Your task to perform on an android device: turn off picture-in-picture Image 0: 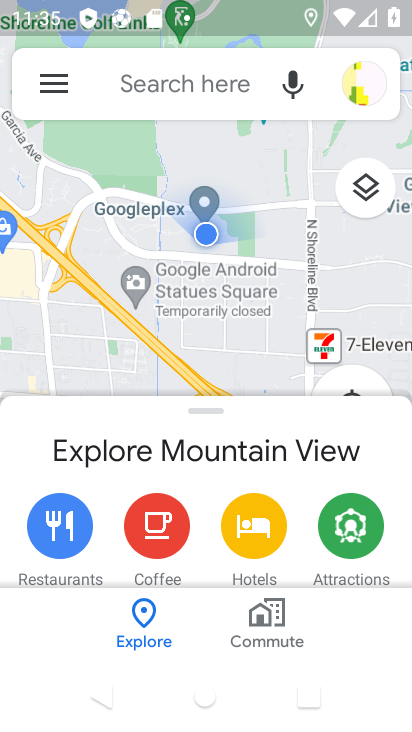
Step 0: press home button
Your task to perform on an android device: turn off picture-in-picture Image 1: 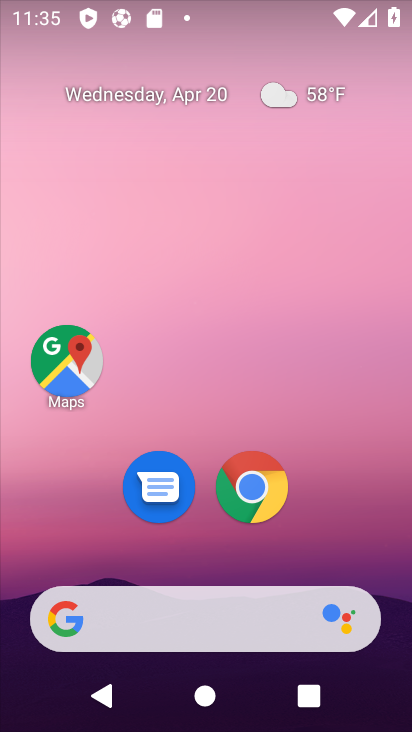
Step 1: click (246, 492)
Your task to perform on an android device: turn off picture-in-picture Image 2: 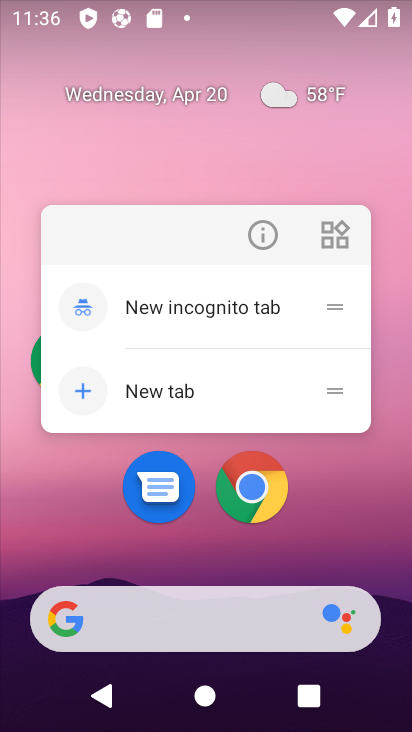
Step 2: click (259, 240)
Your task to perform on an android device: turn off picture-in-picture Image 3: 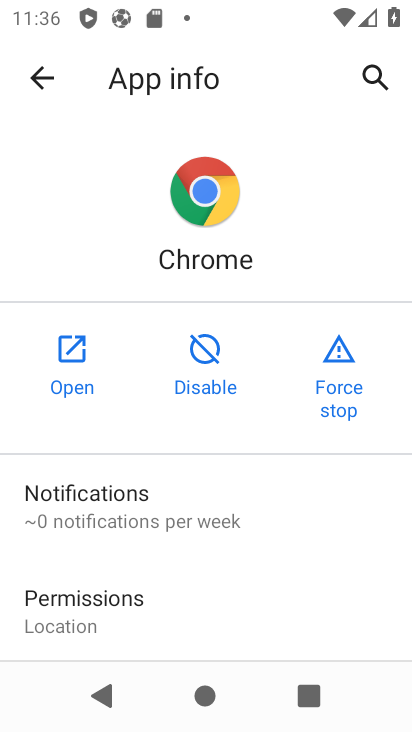
Step 3: drag from (189, 569) to (201, 95)
Your task to perform on an android device: turn off picture-in-picture Image 4: 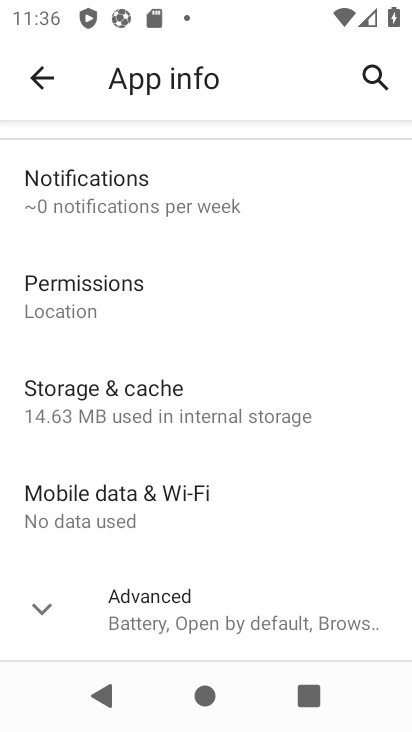
Step 4: click (45, 613)
Your task to perform on an android device: turn off picture-in-picture Image 5: 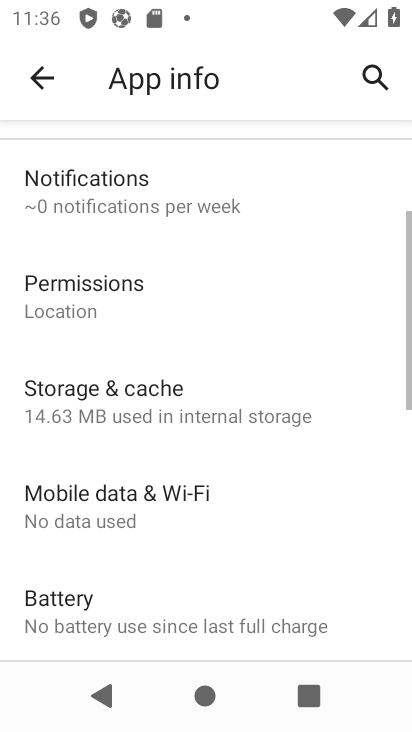
Step 5: drag from (167, 588) to (222, 102)
Your task to perform on an android device: turn off picture-in-picture Image 6: 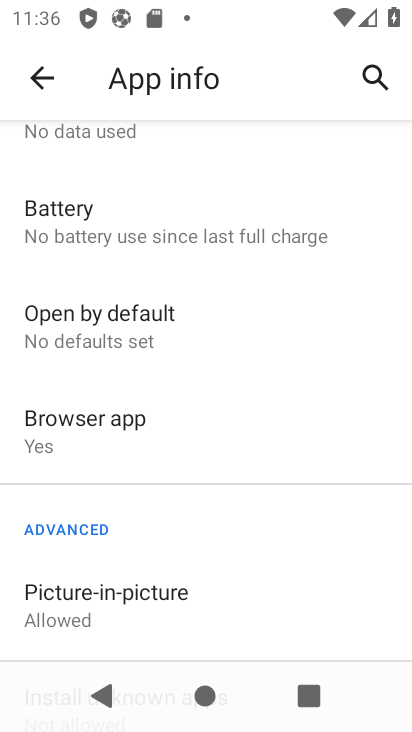
Step 6: click (63, 588)
Your task to perform on an android device: turn off picture-in-picture Image 7: 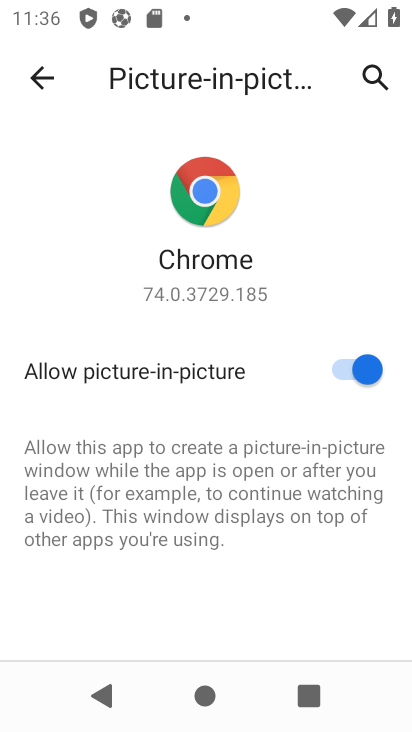
Step 7: click (372, 367)
Your task to perform on an android device: turn off picture-in-picture Image 8: 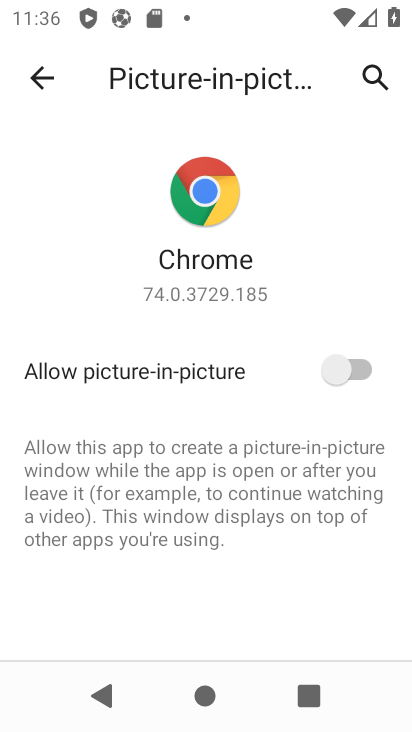
Step 8: task complete